Your task to perform on an android device: remove spam from my inbox in the gmail app Image 0: 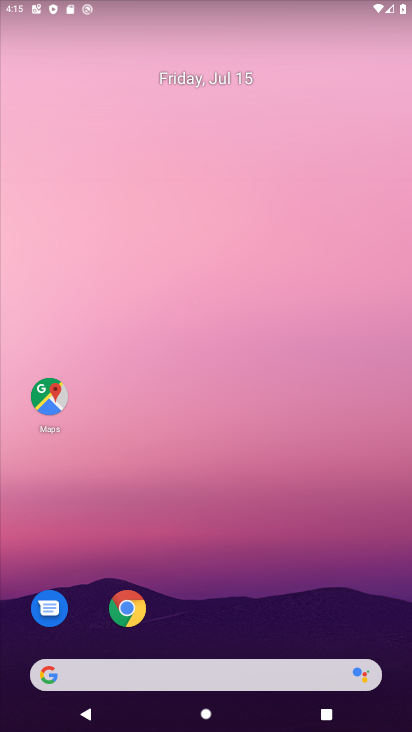
Step 0: drag from (227, 623) to (259, 11)
Your task to perform on an android device: remove spam from my inbox in the gmail app Image 1: 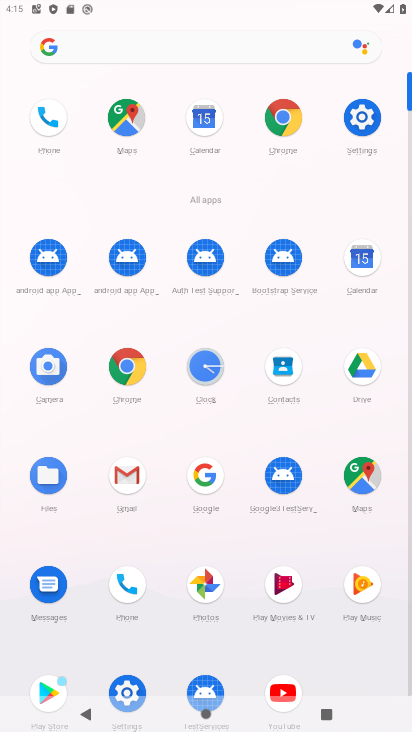
Step 1: click (131, 482)
Your task to perform on an android device: remove spam from my inbox in the gmail app Image 2: 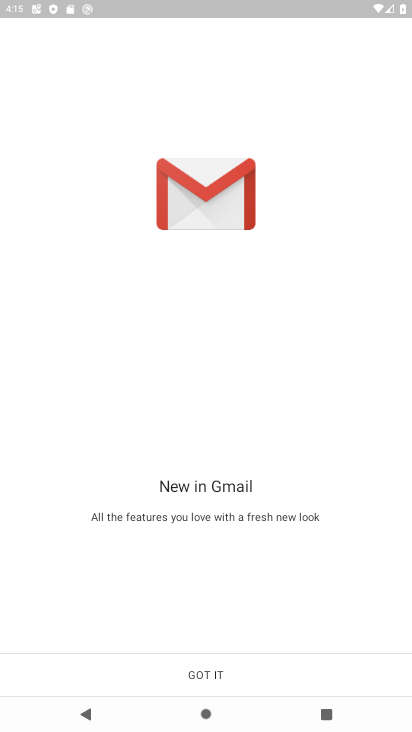
Step 2: click (220, 669)
Your task to perform on an android device: remove spam from my inbox in the gmail app Image 3: 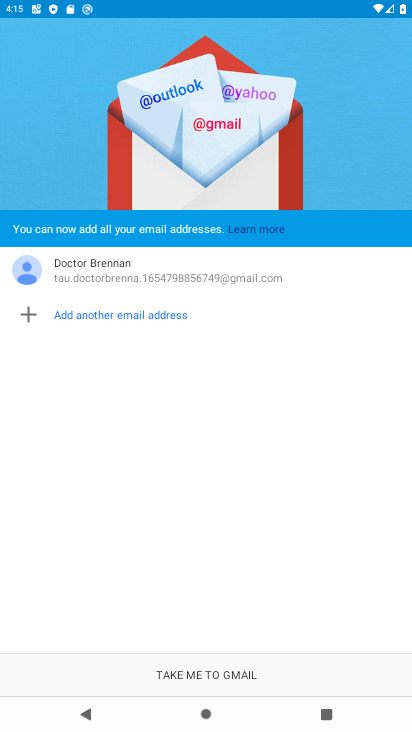
Step 3: click (219, 668)
Your task to perform on an android device: remove spam from my inbox in the gmail app Image 4: 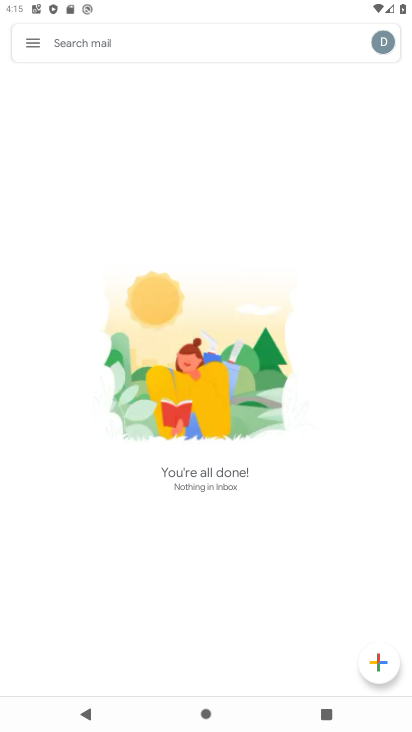
Step 4: click (34, 36)
Your task to perform on an android device: remove spam from my inbox in the gmail app Image 5: 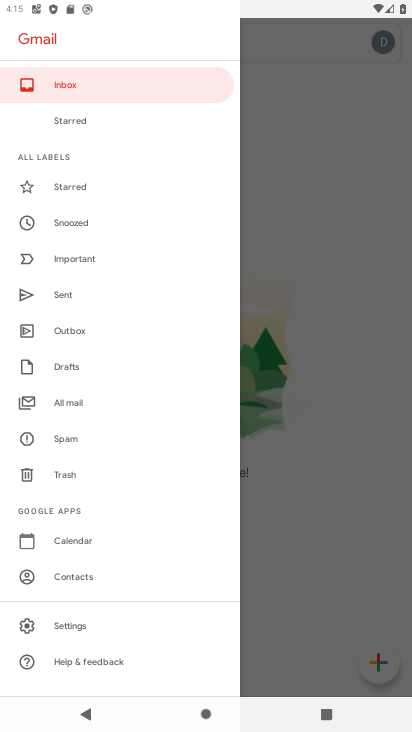
Step 5: click (78, 445)
Your task to perform on an android device: remove spam from my inbox in the gmail app Image 6: 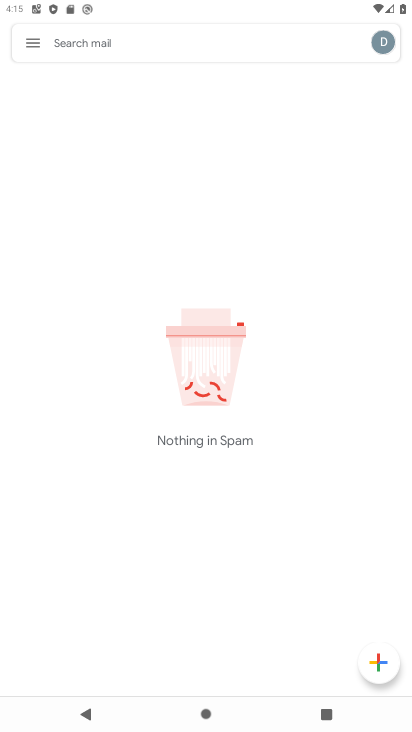
Step 6: task complete